Your task to perform on an android device: What's on my calendar tomorrow? Image 0: 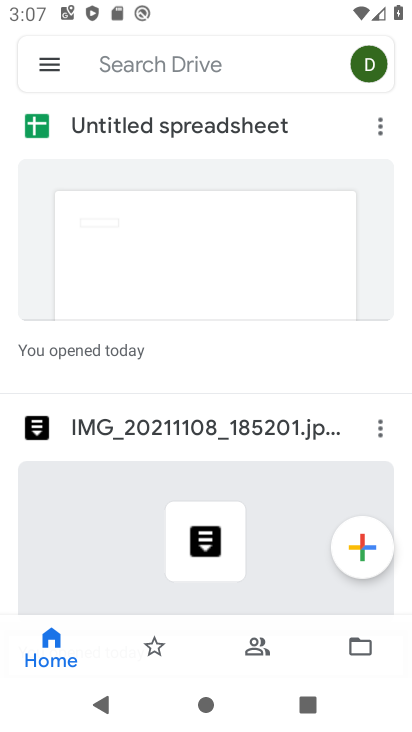
Step 0: press home button
Your task to perform on an android device: What's on my calendar tomorrow? Image 1: 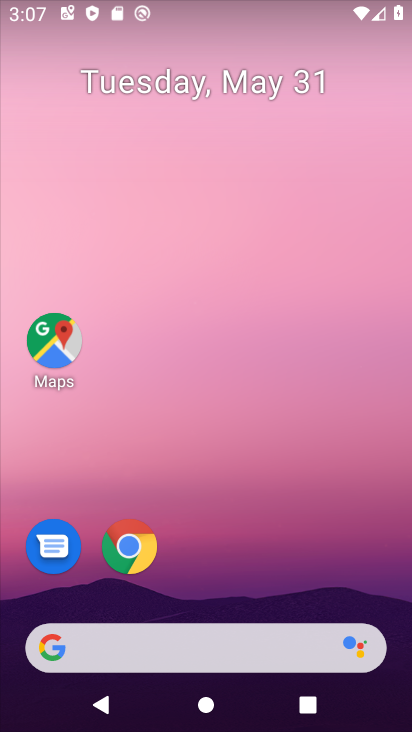
Step 1: drag from (250, 561) to (284, 29)
Your task to perform on an android device: What's on my calendar tomorrow? Image 2: 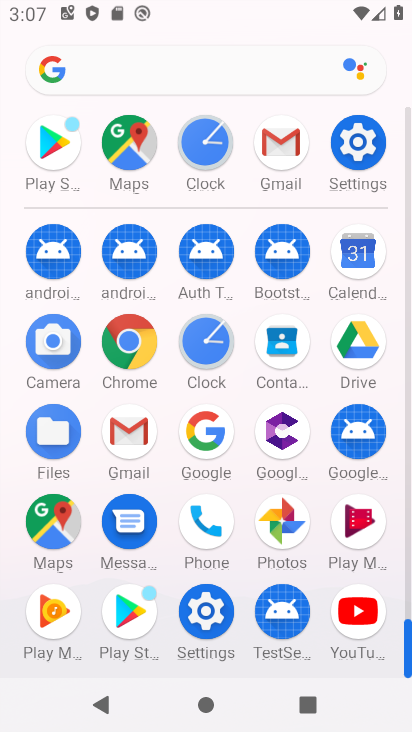
Step 2: click (358, 259)
Your task to perform on an android device: What's on my calendar tomorrow? Image 3: 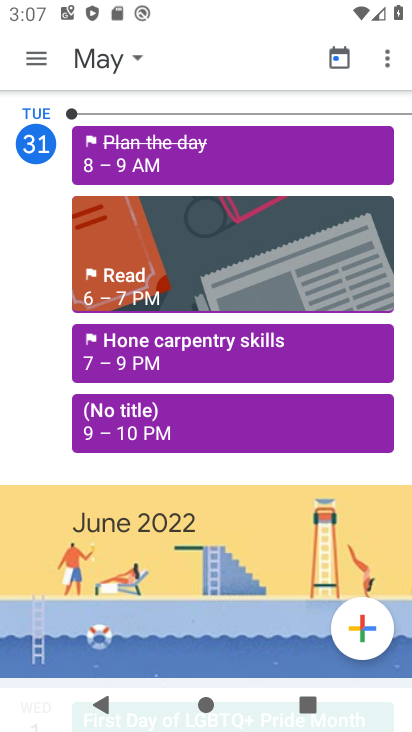
Step 3: task complete